Your task to perform on an android device: toggle notification dots Image 0: 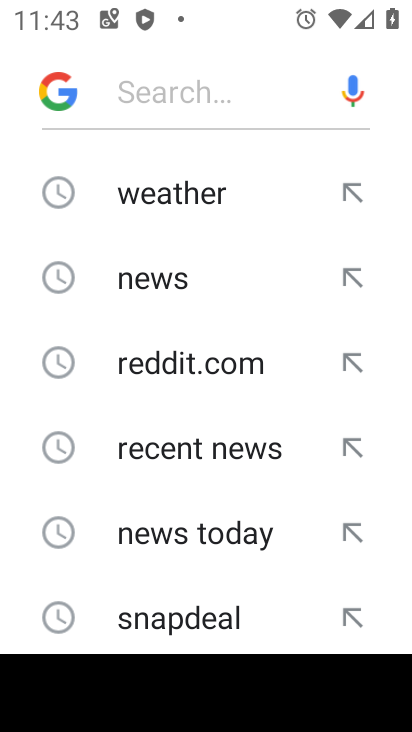
Step 0: press home button
Your task to perform on an android device: toggle notification dots Image 1: 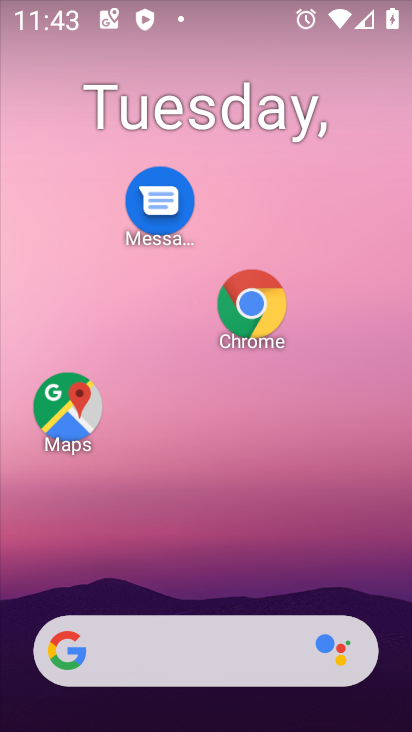
Step 1: drag from (204, 556) to (296, 187)
Your task to perform on an android device: toggle notification dots Image 2: 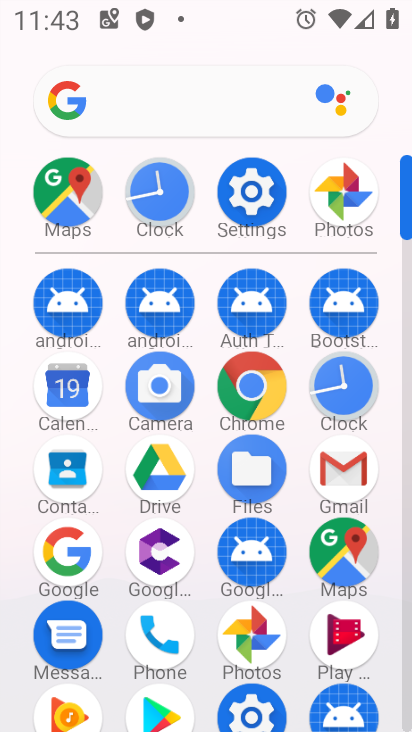
Step 2: click (238, 177)
Your task to perform on an android device: toggle notification dots Image 3: 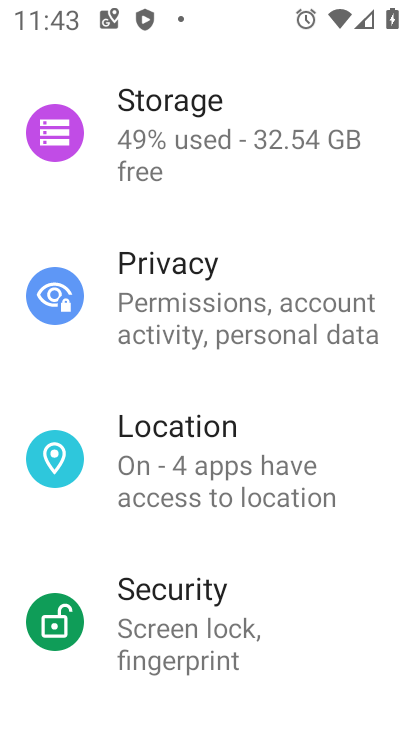
Step 3: drag from (302, 116) to (249, 665)
Your task to perform on an android device: toggle notification dots Image 4: 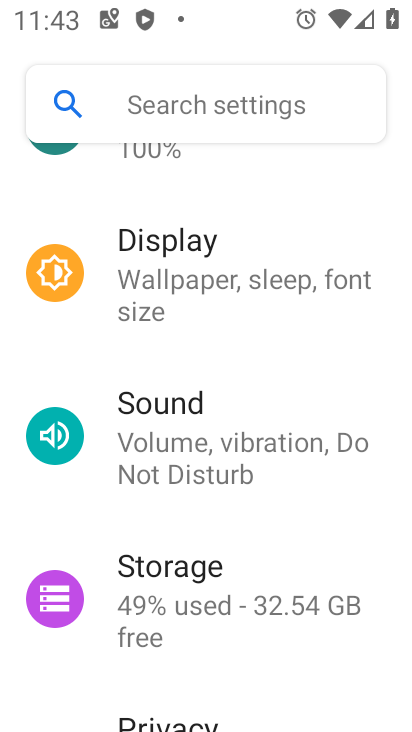
Step 4: click (276, 88)
Your task to perform on an android device: toggle notification dots Image 5: 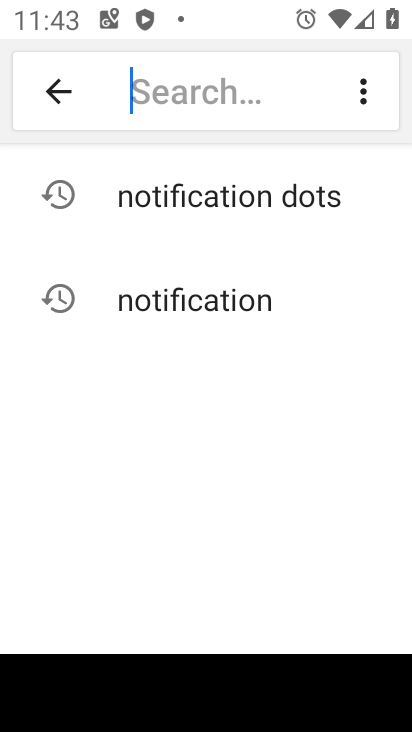
Step 5: click (262, 187)
Your task to perform on an android device: toggle notification dots Image 6: 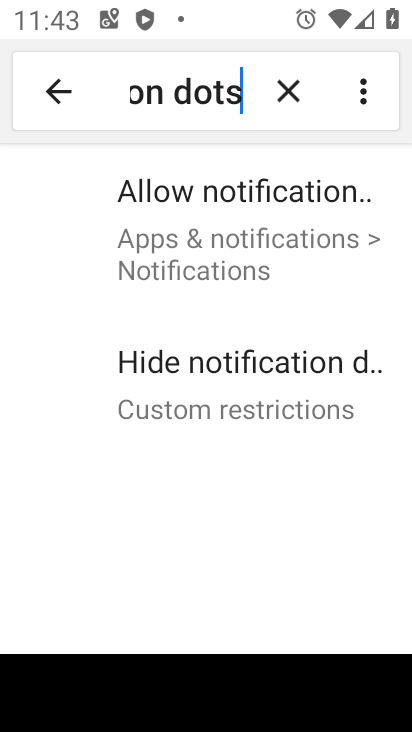
Step 6: click (243, 229)
Your task to perform on an android device: toggle notification dots Image 7: 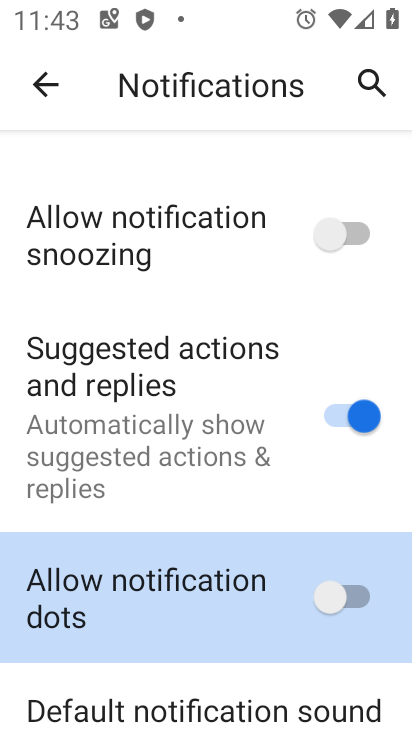
Step 7: click (346, 597)
Your task to perform on an android device: toggle notification dots Image 8: 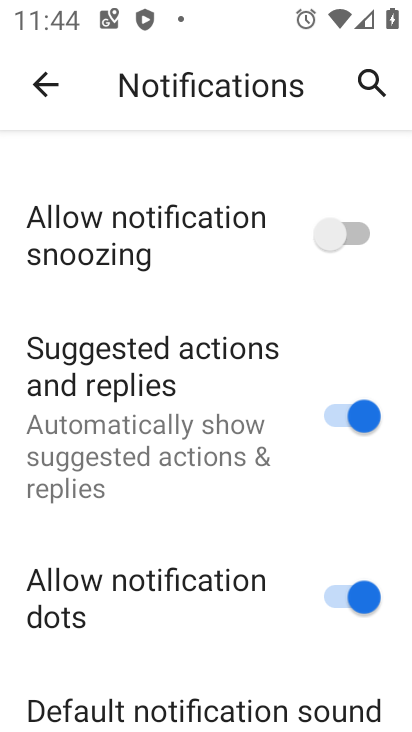
Step 8: task complete